Your task to perform on an android device: turn off location history Image 0: 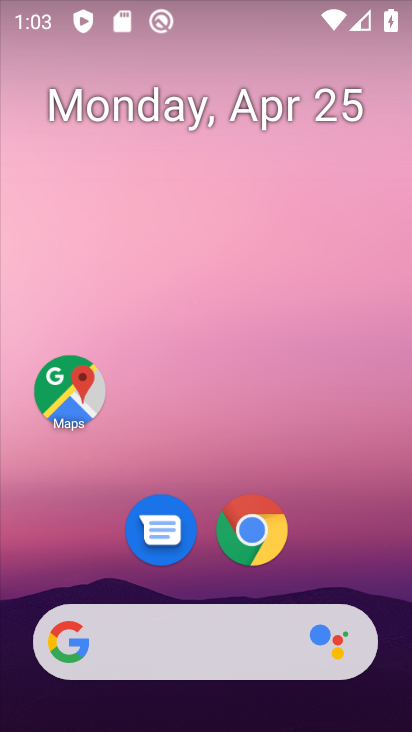
Step 0: drag from (363, 531) to (328, 181)
Your task to perform on an android device: turn off location history Image 1: 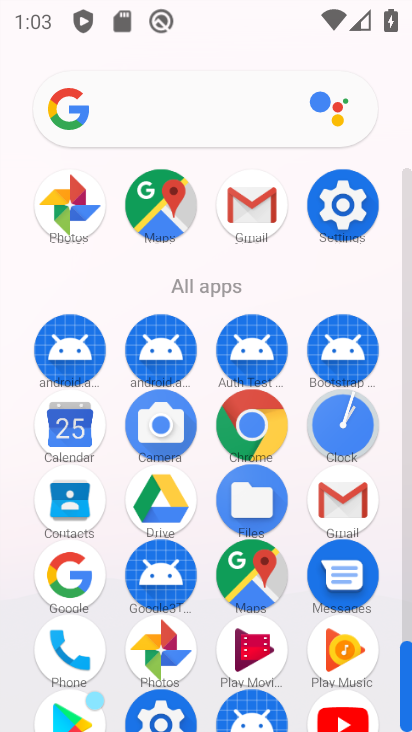
Step 1: drag from (393, 555) to (394, 239)
Your task to perform on an android device: turn off location history Image 2: 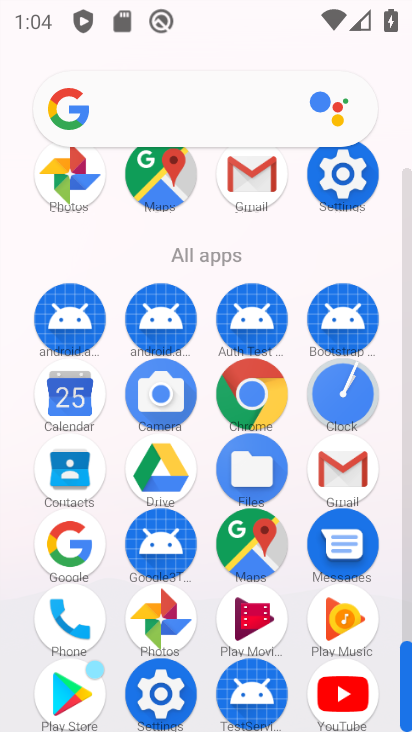
Step 2: click (368, 197)
Your task to perform on an android device: turn off location history Image 3: 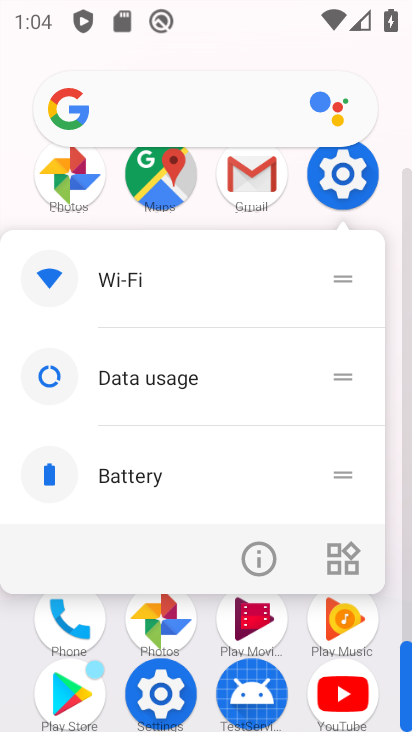
Step 3: click (363, 190)
Your task to perform on an android device: turn off location history Image 4: 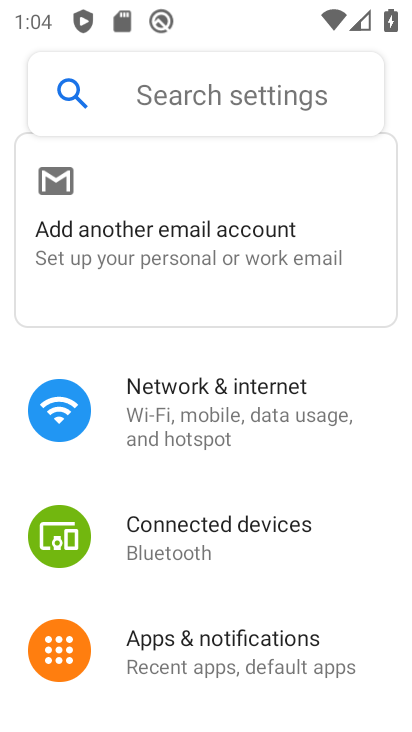
Step 4: drag from (290, 600) to (307, 233)
Your task to perform on an android device: turn off location history Image 5: 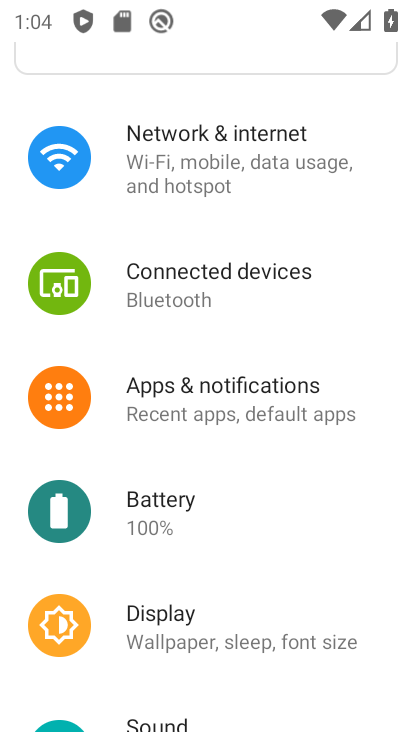
Step 5: drag from (340, 539) to (349, 234)
Your task to perform on an android device: turn off location history Image 6: 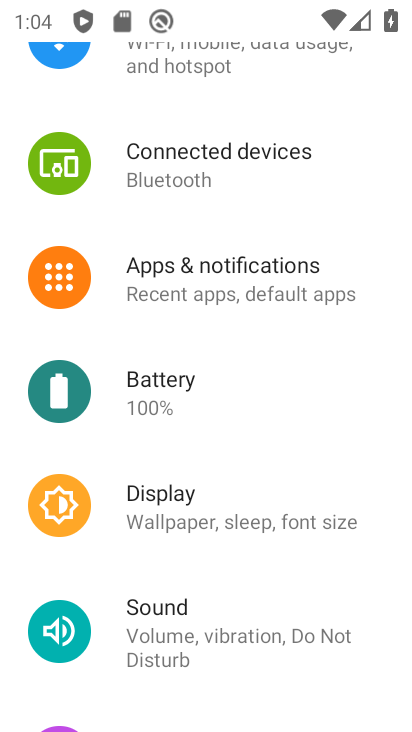
Step 6: drag from (376, 601) to (360, 269)
Your task to perform on an android device: turn off location history Image 7: 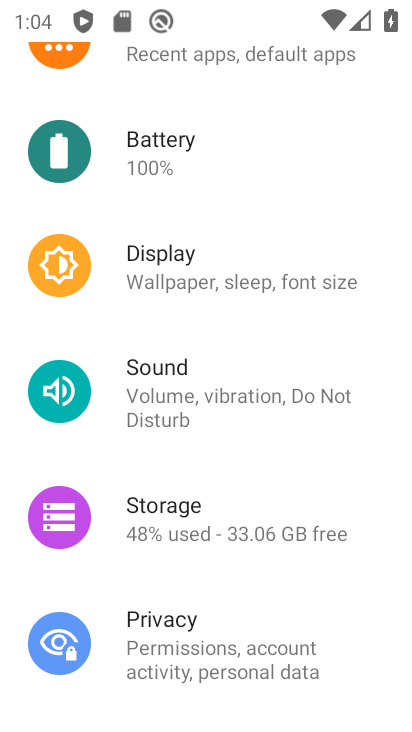
Step 7: drag from (322, 665) to (322, 278)
Your task to perform on an android device: turn off location history Image 8: 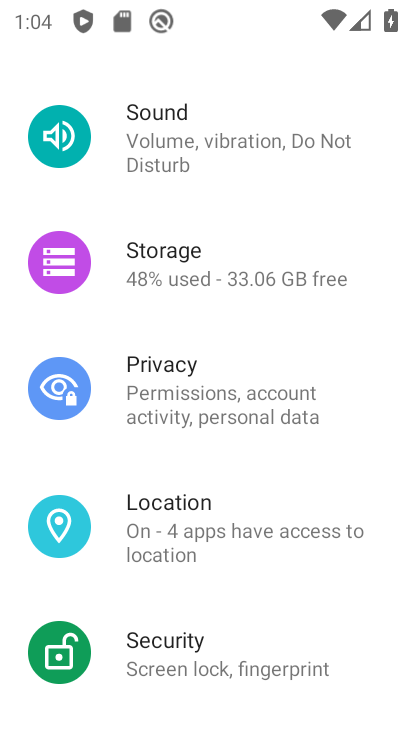
Step 8: drag from (308, 607) to (320, 293)
Your task to perform on an android device: turn off location history Image 9: 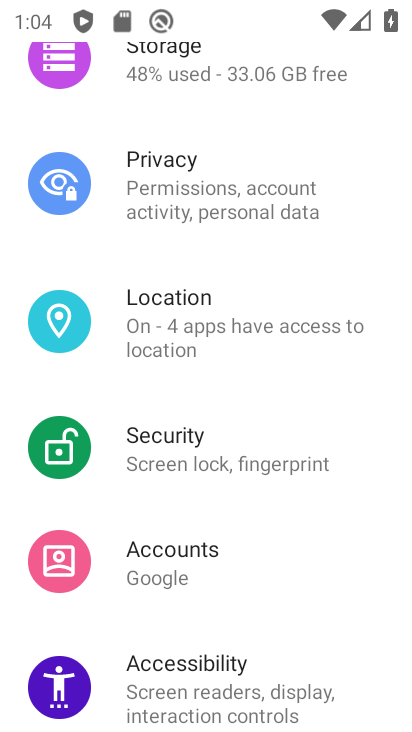
Step 9: click (255, 330)
Your task to perform on an android device: turn off location history Image 10: 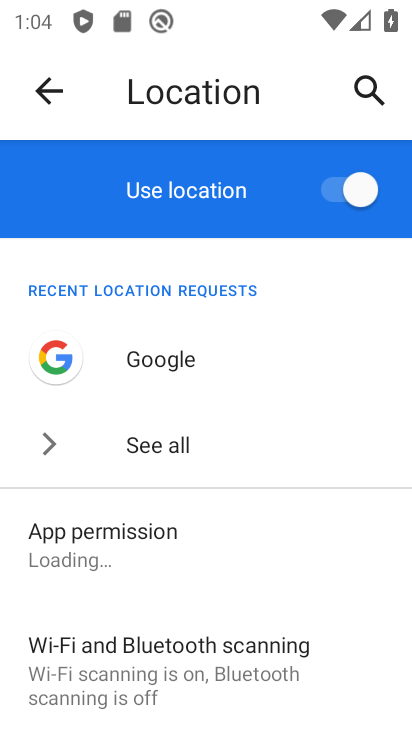
Step 10: drag from (341, 678) to (328, 403)
Your task to perform on an android device: turn off location history Image 11: 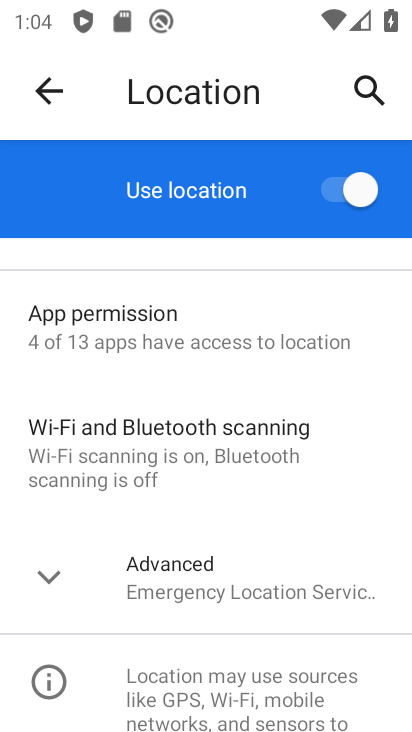
Step 11: click (270, 605)
Your task to perform on an android device: turn off location history Image 12: 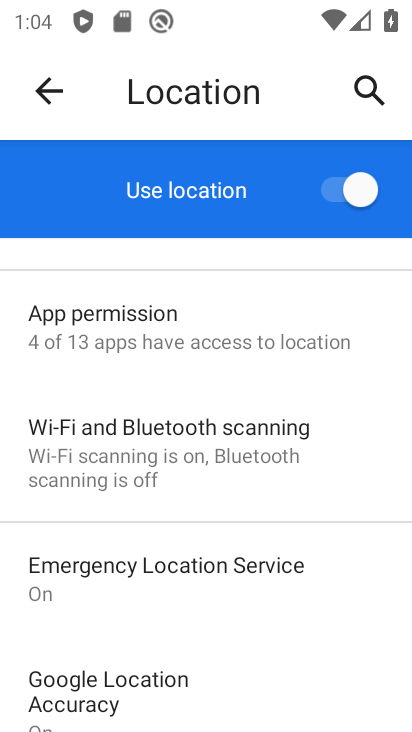
Step 12: task complete